Your task to perform on an android device: turn off location Image 0: 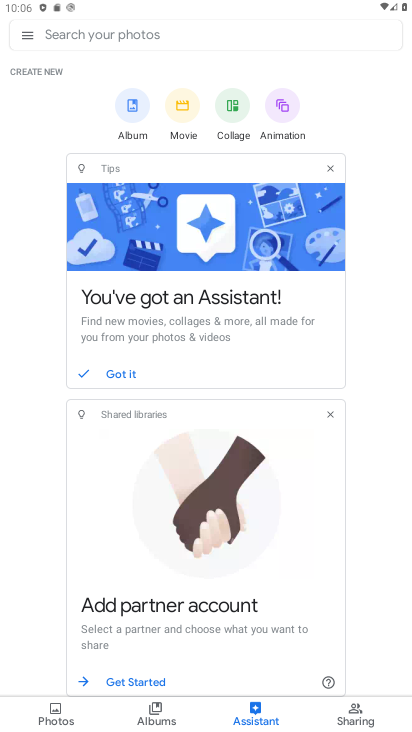
Step 0: press home button
Your task to perform on an android device: turn off location Image 1: 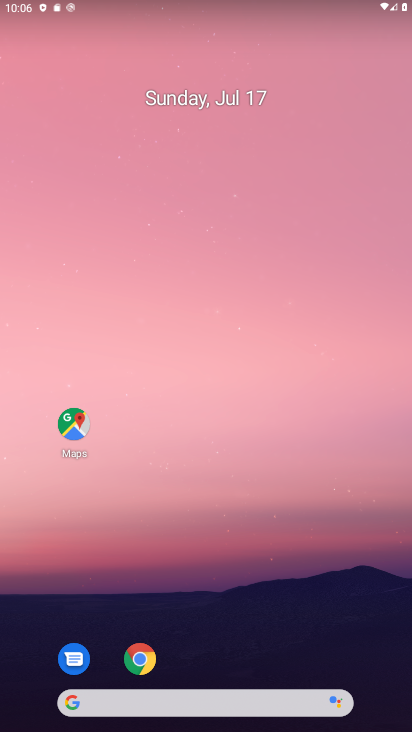
Step 1: drag from (170, 699) to (155, 31)
Your task to perform on an android device: turn off location Image 2: 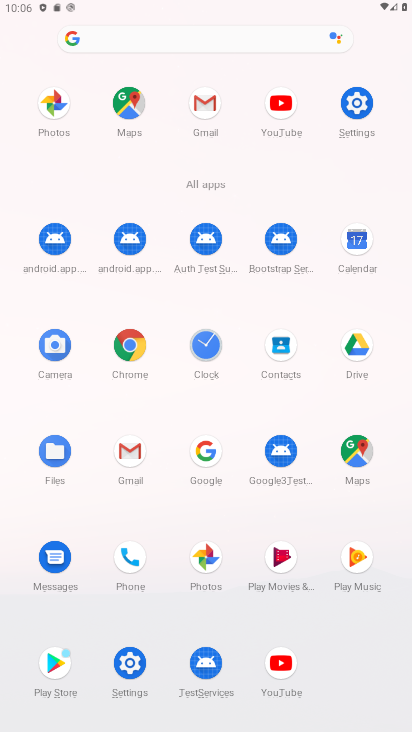
Step 2: click (368, 102)
Your task to perform on an android device: turn off location Image 3: 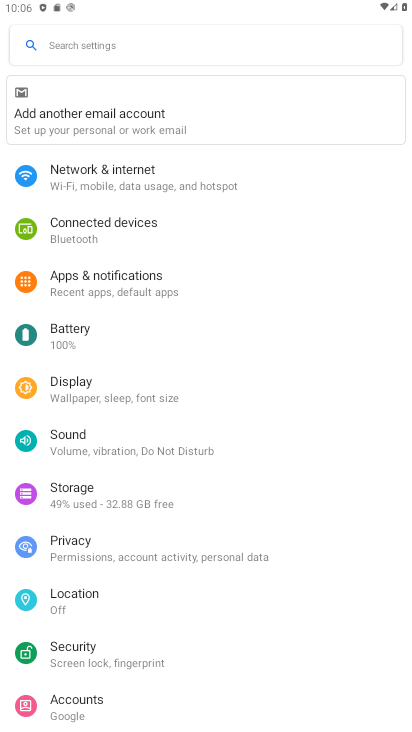
Step 3: click (103, 602)
Your task to perform on an android device: turn off location Image 4: 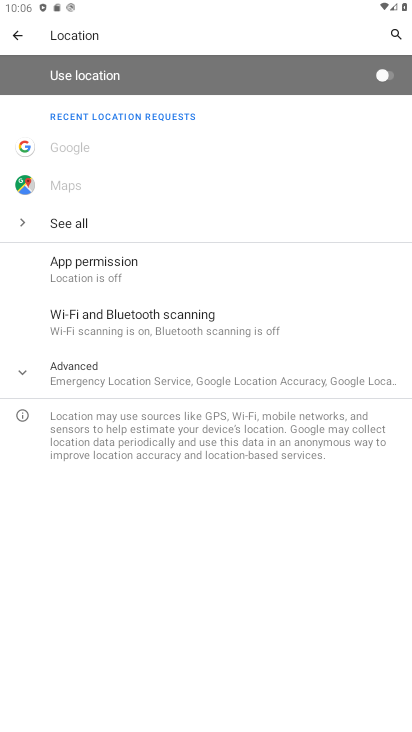
Step 4: task complete